Your task to perform on an android device: open chrome privacy settings Image 0: 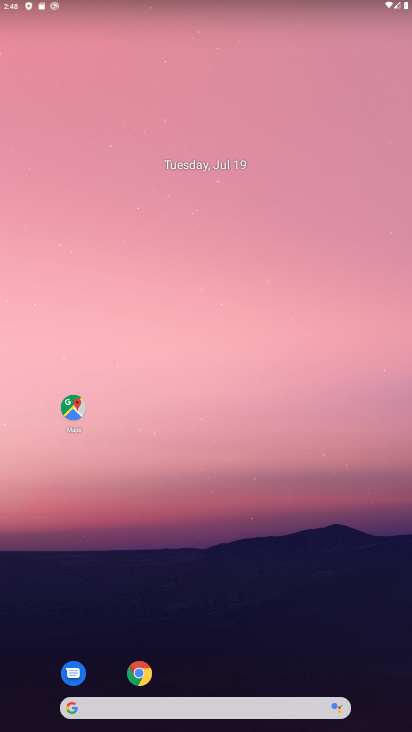
Step 0: drag from (234, 539) to (254, 146)
Your task to perform on an android device: open chrome privacy settings Image 1: 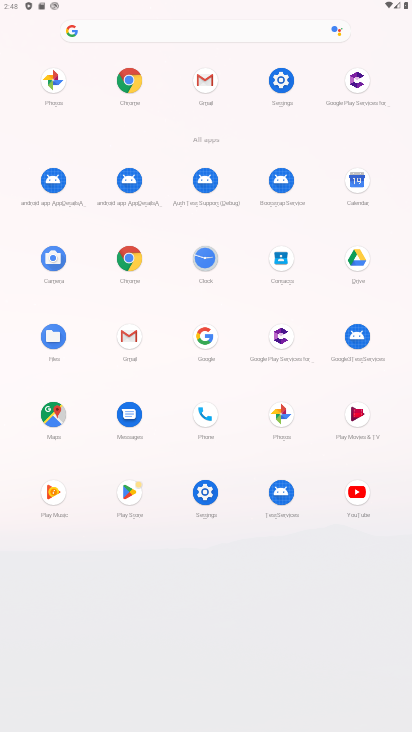
Step 1: click (125, 271)
Your task to perform on an android device: open chrome privacy settings Image 2: 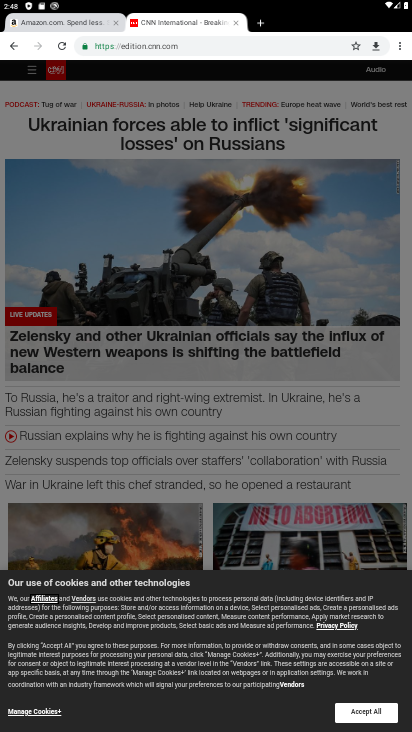
Step 2: click (401, 45)
Your task to perform on an android device: open chrome privacy settings Image 3: 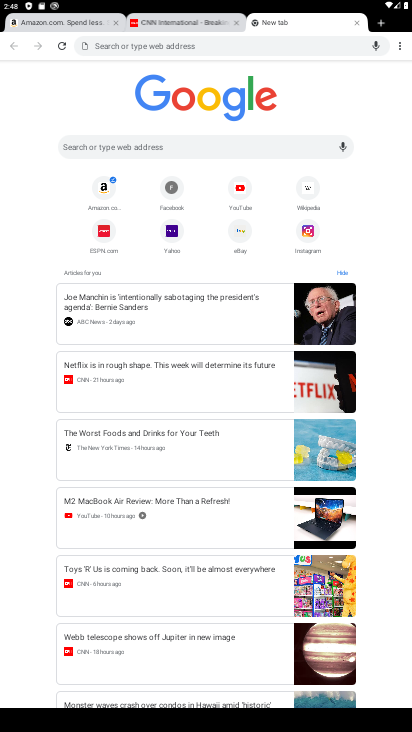
Step 3: click (404, 48)
Your task to perform on an android device: open chrome privacy settings Image 4: 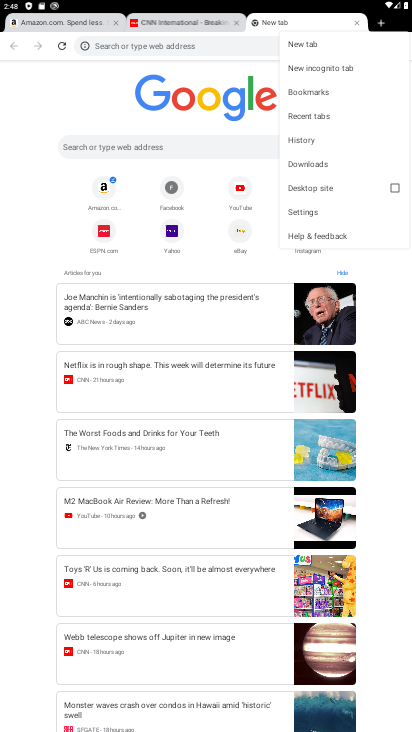
Step 4: click (332, 212)
Your task to perform on an android device: open chrome privacy settings Image 5: 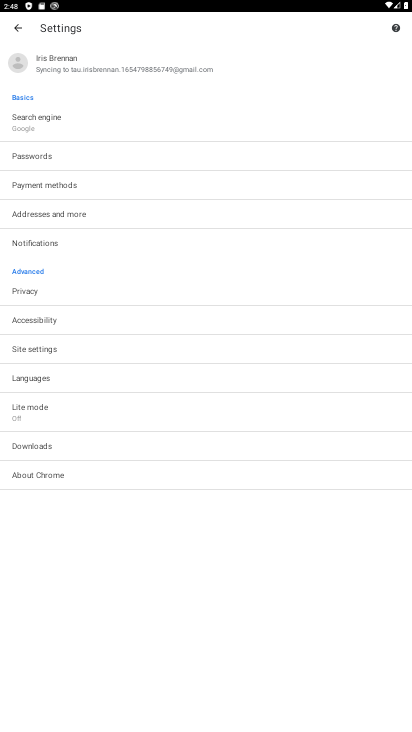
Step 5: click (79, 294)
Your task to perform on an android device: open chrome privacy settings Image 6: 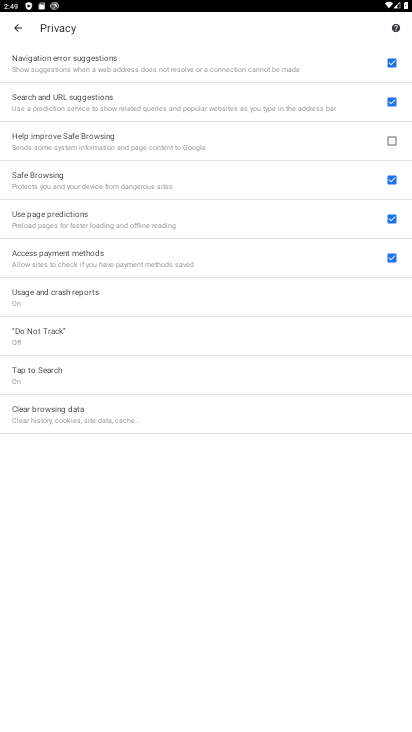
Step 6: task complete